Your task to perform on an android device: View the shopping cart on target.com. Add "macbook air" to the cart on target.com, then select checkout. Image 0: 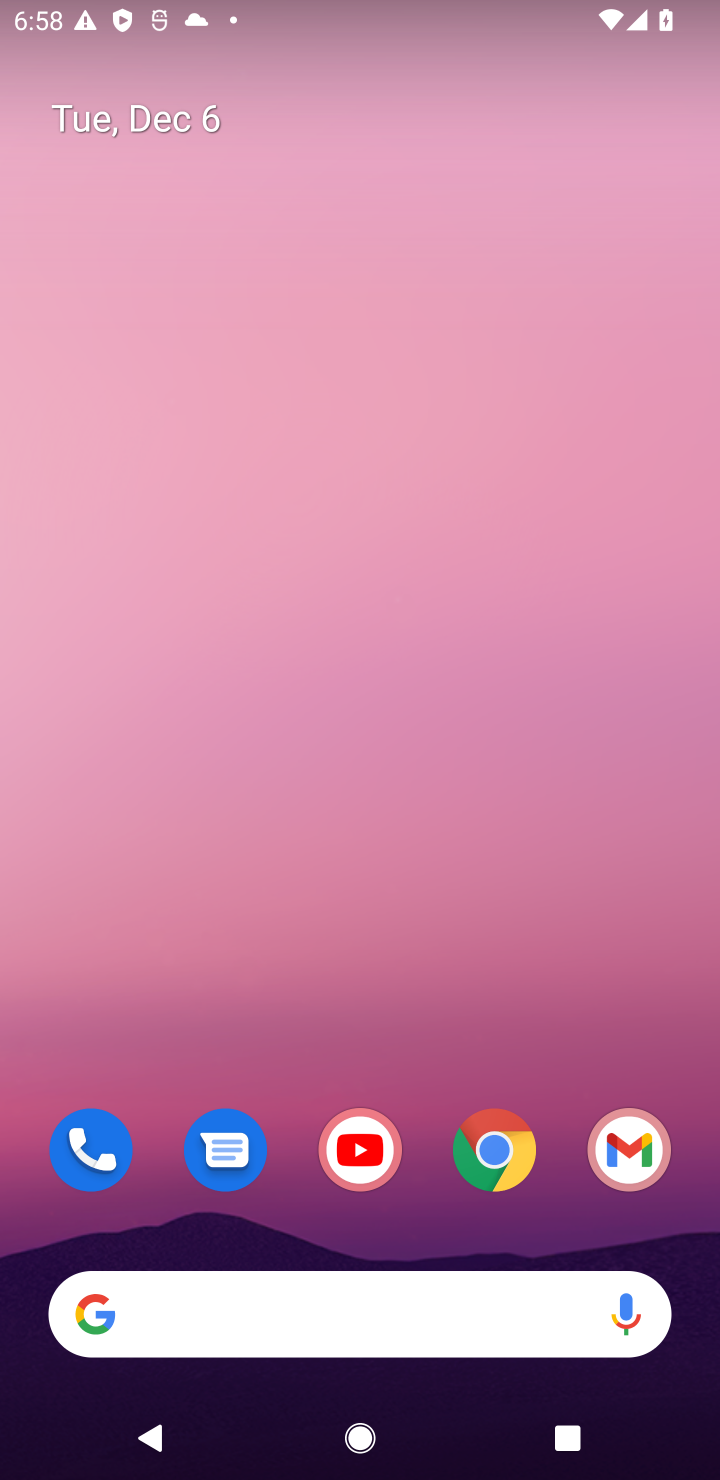
Step 0: click (490, 1164)
Your task to perform on an android device: View the shopping cart on target.com. Add "macbook air" to the cart on target.com, then select checkout. Image 1: 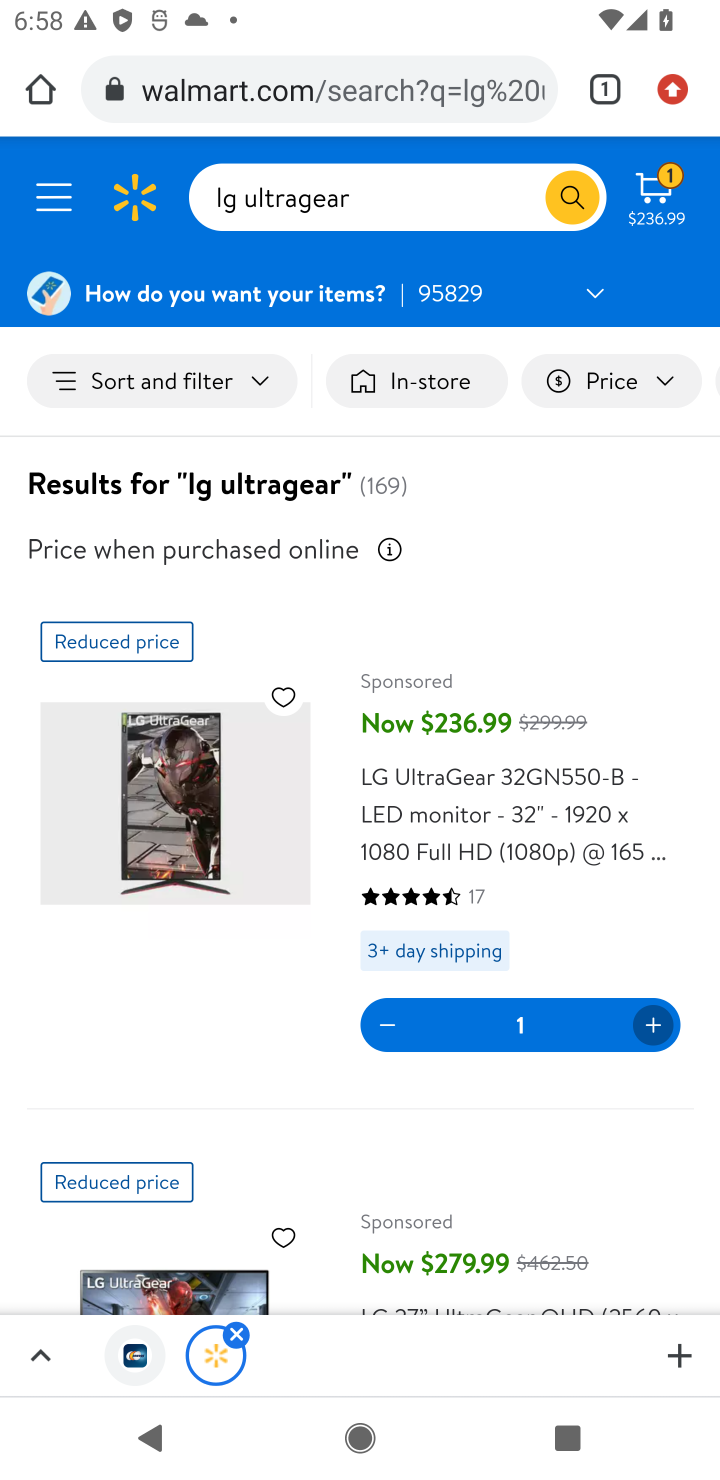
Step 1: click (282, 100)
Your task to perform on an android device: View the shopping cart on target.com. Add "macbook air" to the cart on target.com, then select checkout. Image 2: 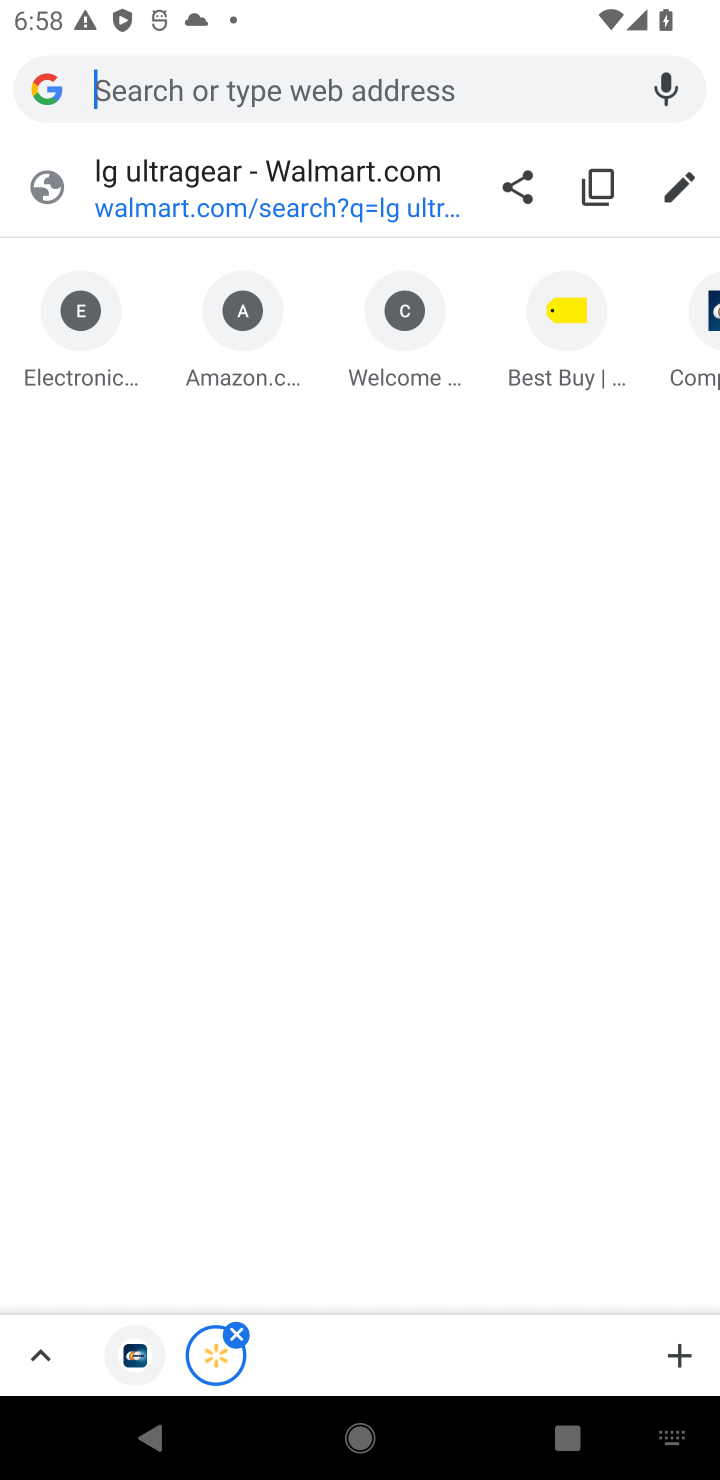
Step 2: type "target.com"
Your task to perform on an android device: View the shopping cart on target.com. Add "macbook air" to the cart on target.com, then select checkout. Image 3: 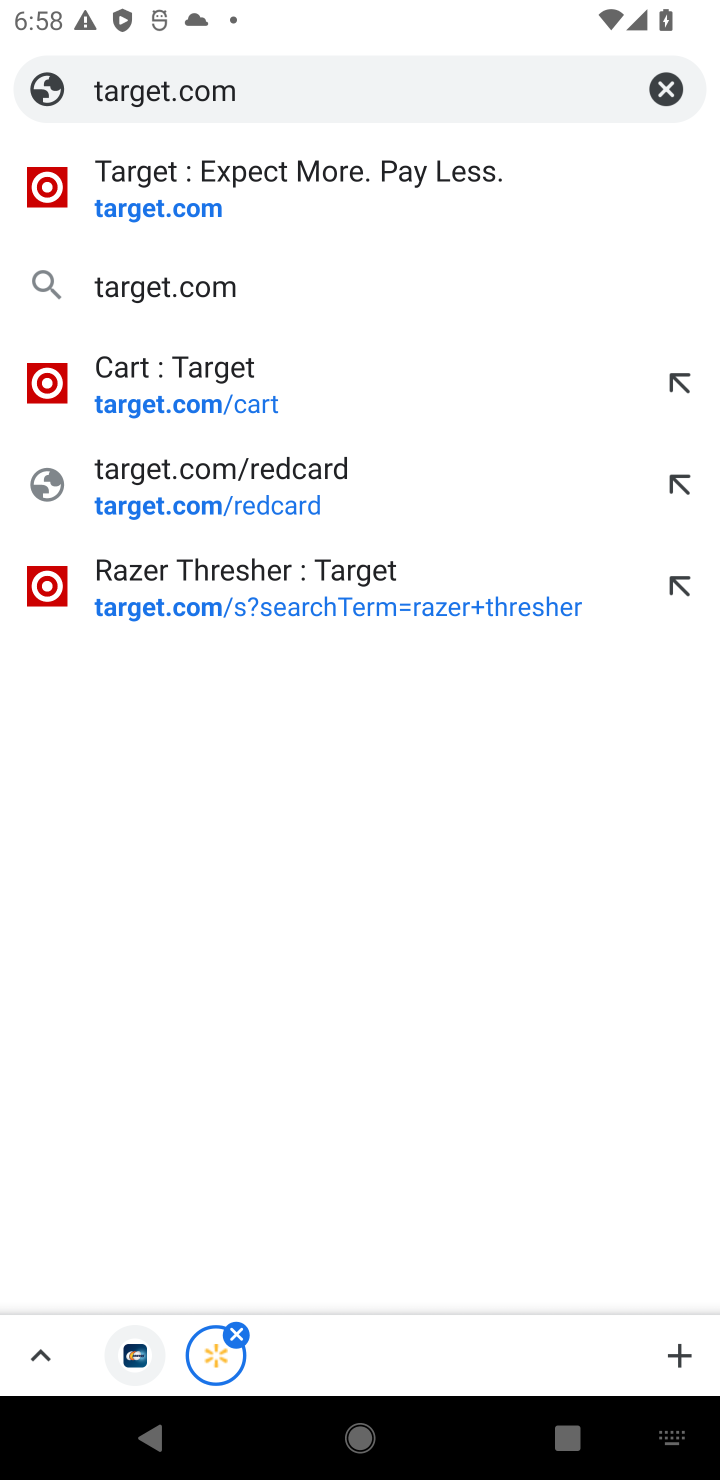
Step 3: click (169, 212)
Your task to perform on an android device: View the shopping cart on target.com. Add "macbook air" to the cart on target.com, then select checkout. Image 4: 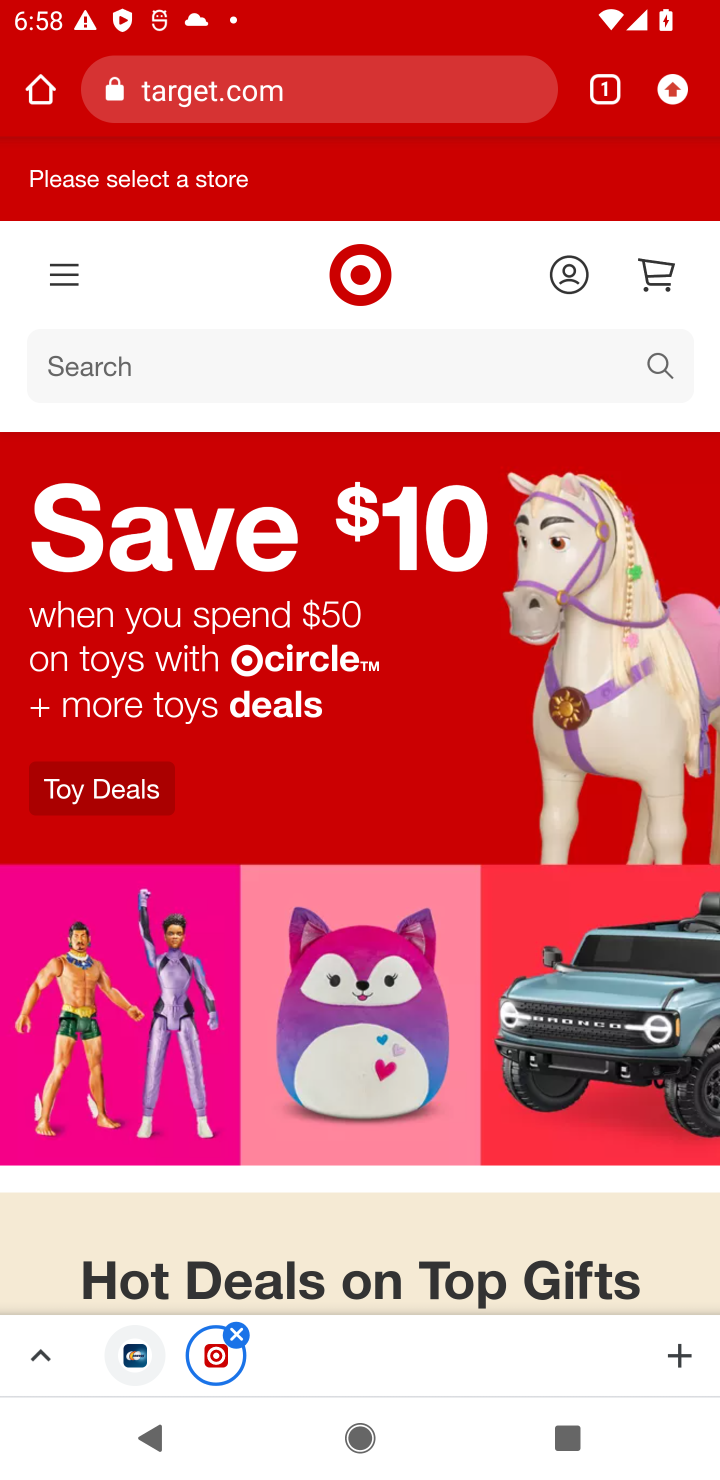
Step 4: click (660, 260)
Your task to perform on an android device: View the shopping cart on target.com. Add "macbook air" to the cart on target.com, then select checkout. Image 5: 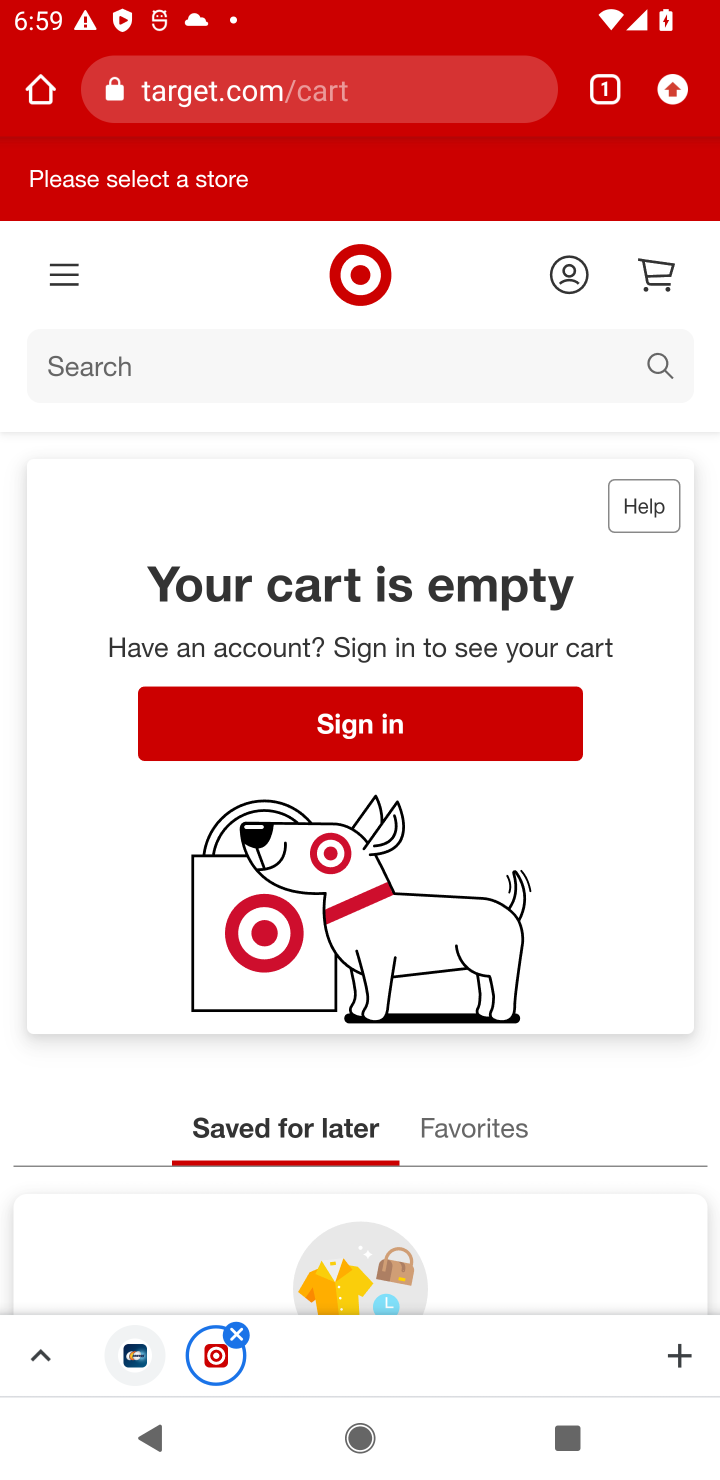
Step 5: click (39, 362)
Your task to perform on an android device: View the shopping cart on target.com. Add "macbook air" to the cart on target.com, then select checkout. Image 6: 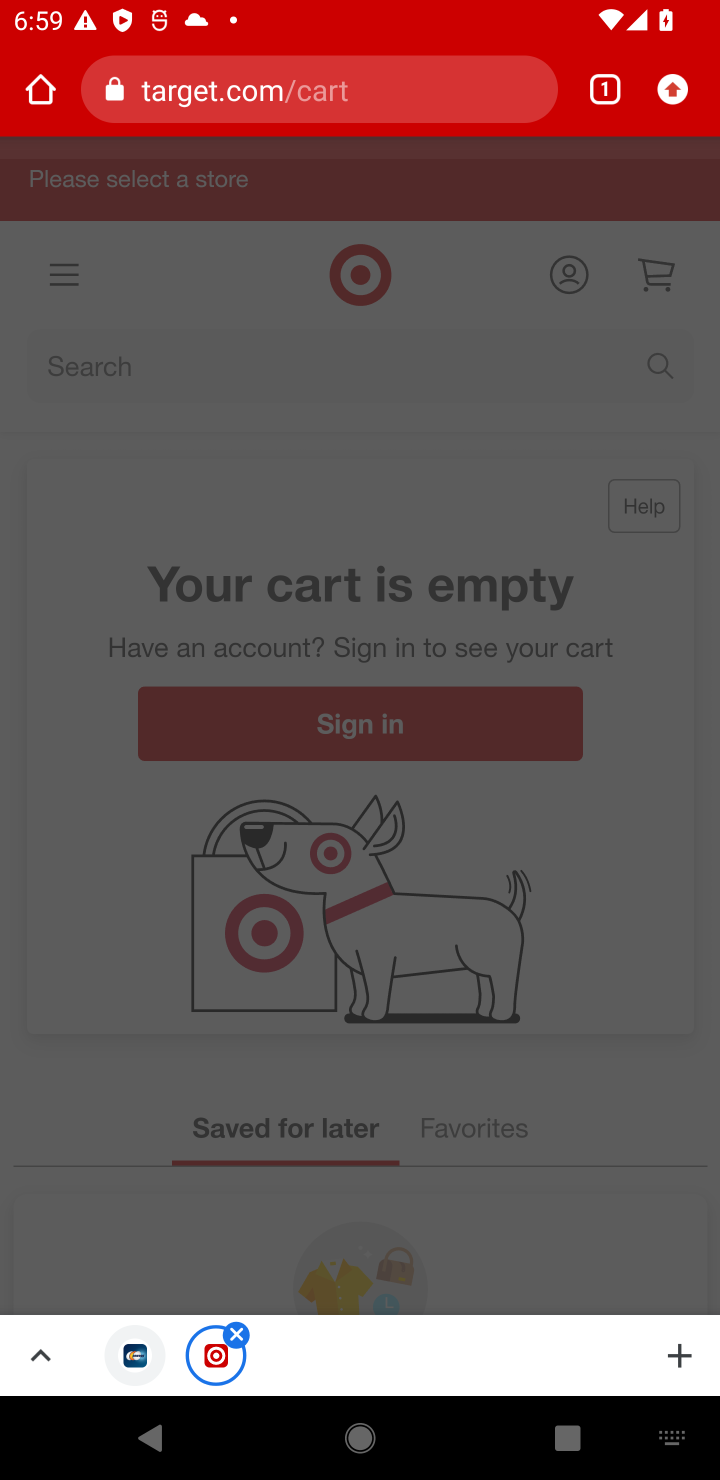
Step 6: click (103, 377)
Your task to perform on an android device: View the shopping cart on target.com. Add "macbook air" to the cart on target.com, then select checkout. Image 7: 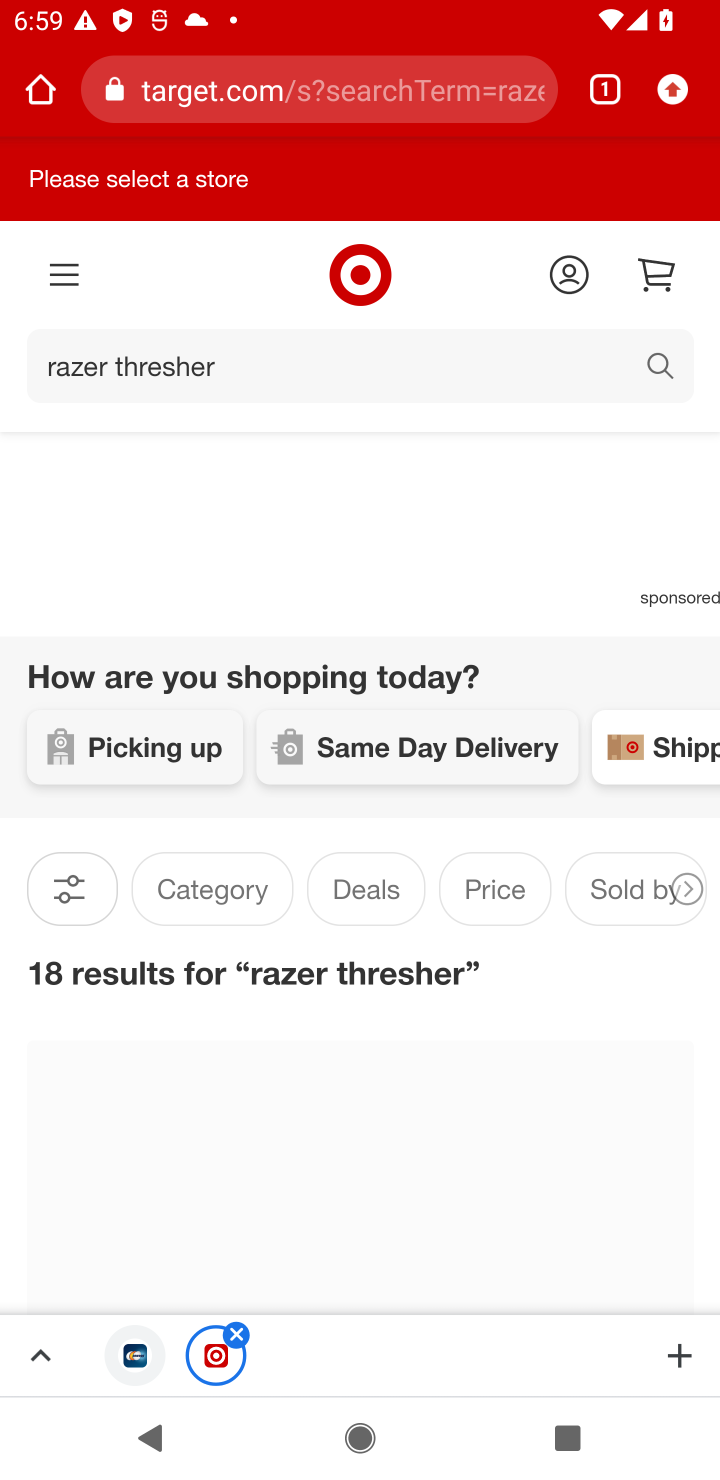
Step 7: click (255, 357)
Your task to perform on an android device: View the shopping cart on target.com. Add "macbook air" to the cart on target.com, then select checkout. Image 8: 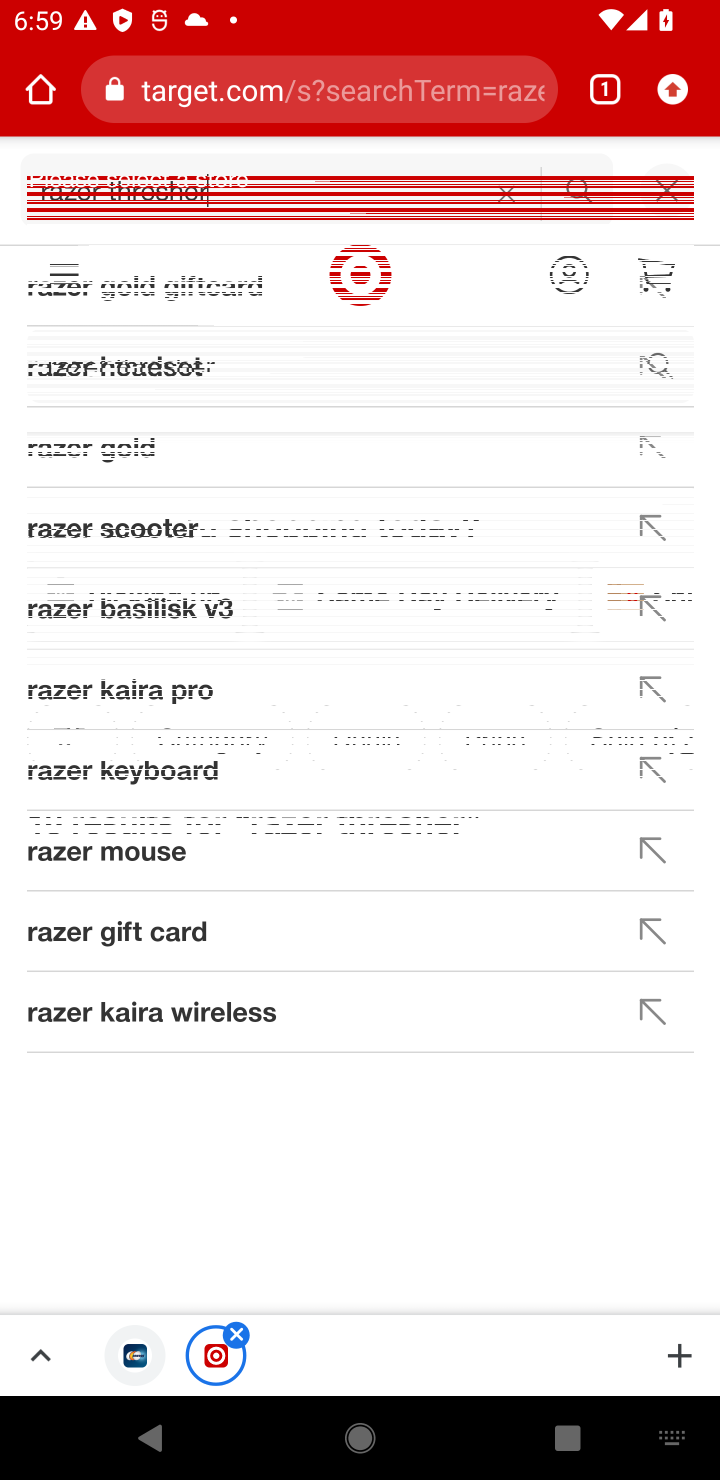
Step 8: click (500, 196)
Your task to perform on an android device: View the shopping cart on target.com. Add "macbook air" to the cart on target.com, then select checkout. Image 9: 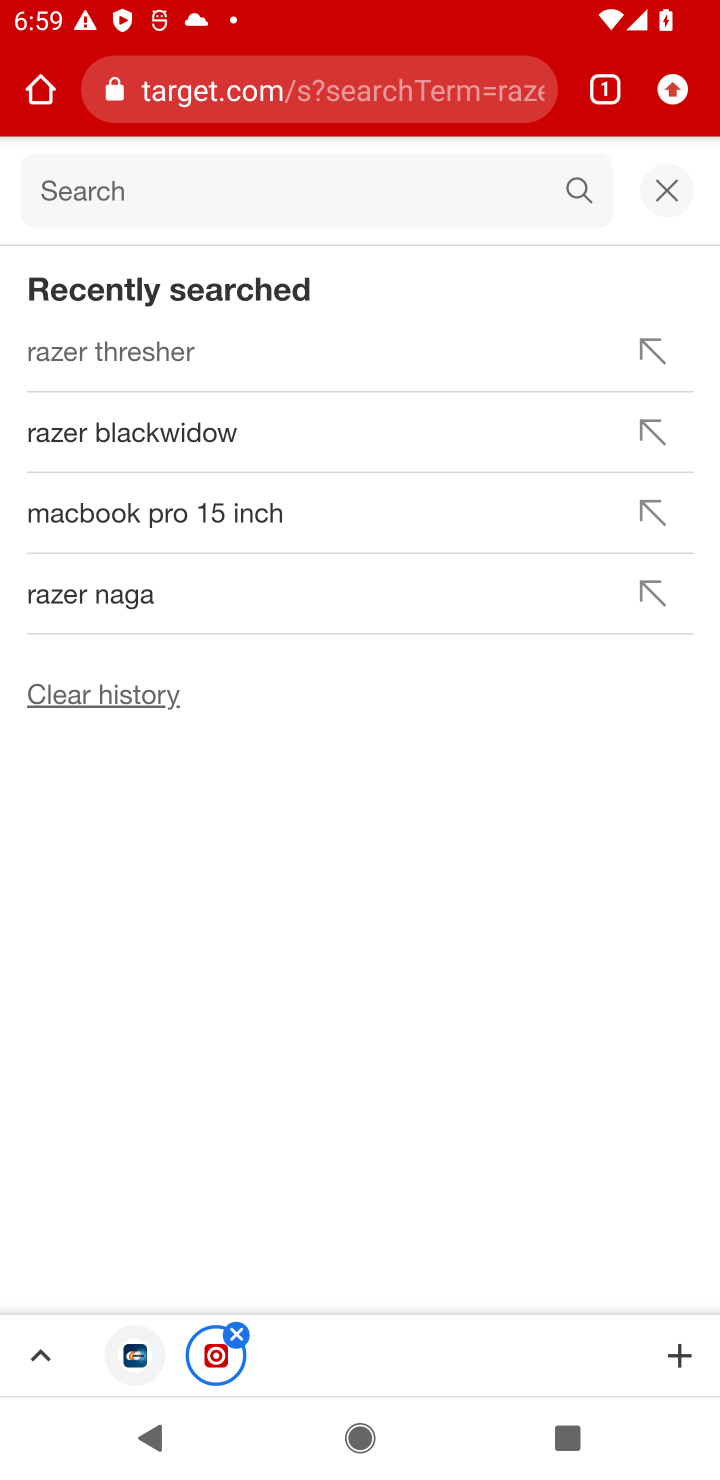
Step 9: type "macbook air "
Your task to perform on an android device: View the shopping cart on target.com. Add "macbook air" to the cart on target.com, then select checkout. Image 10: 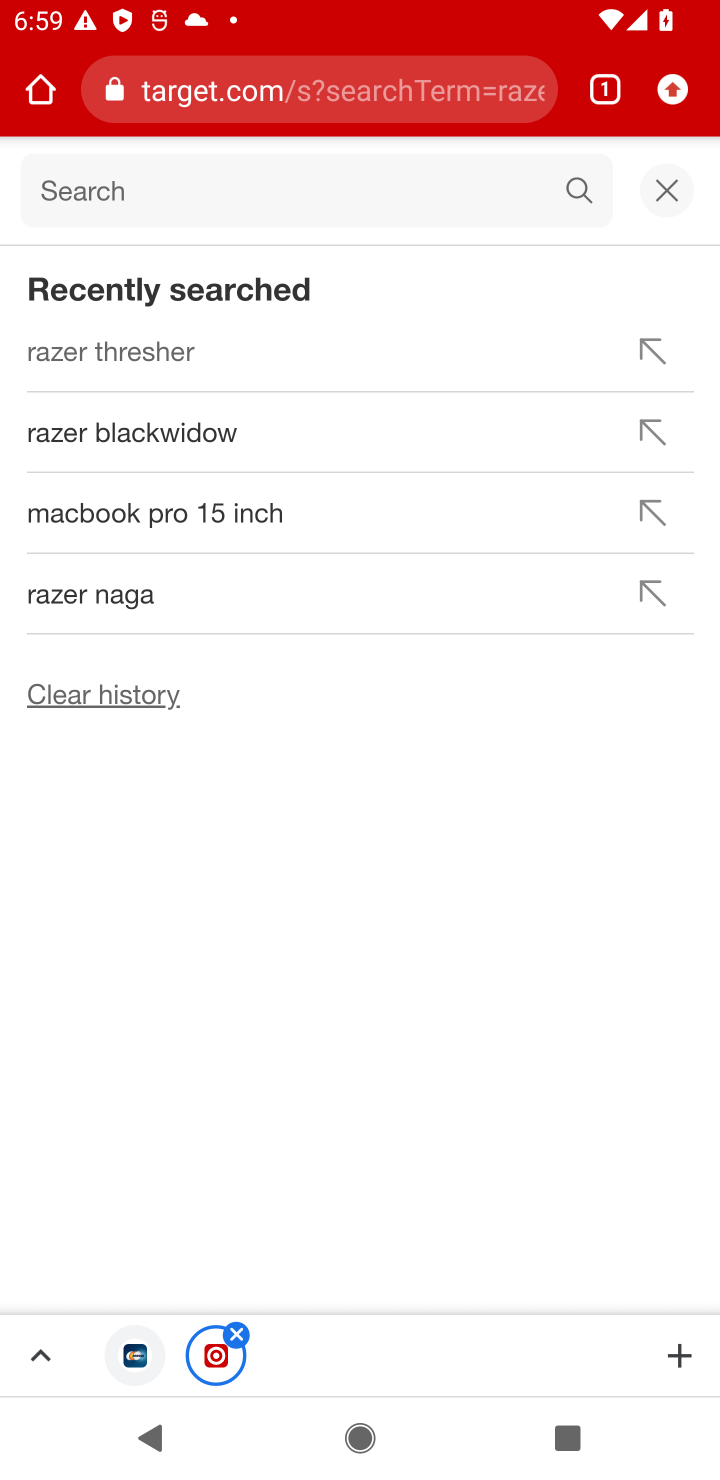
Step 10: click (84, 190)
Your task to perform on an android device: View the shopping cart on target.com. Add "macbook air" to the cart on target.com, then select checkout. Image 11: 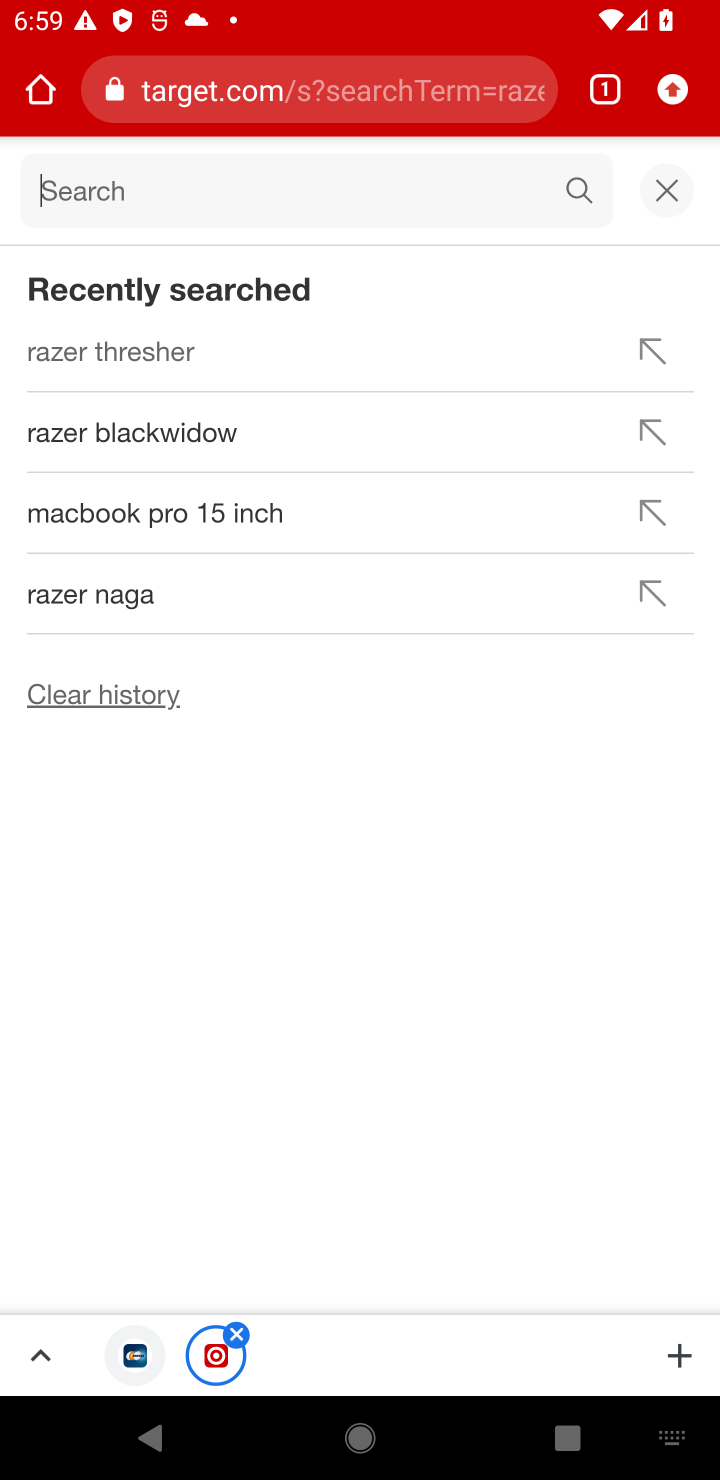
Step 11: type "macbook air"
Your task to perform on an android device: View the shopping cart on target.com. Add "macbook air" to the cart on target.com, then select checkout. Image 12: 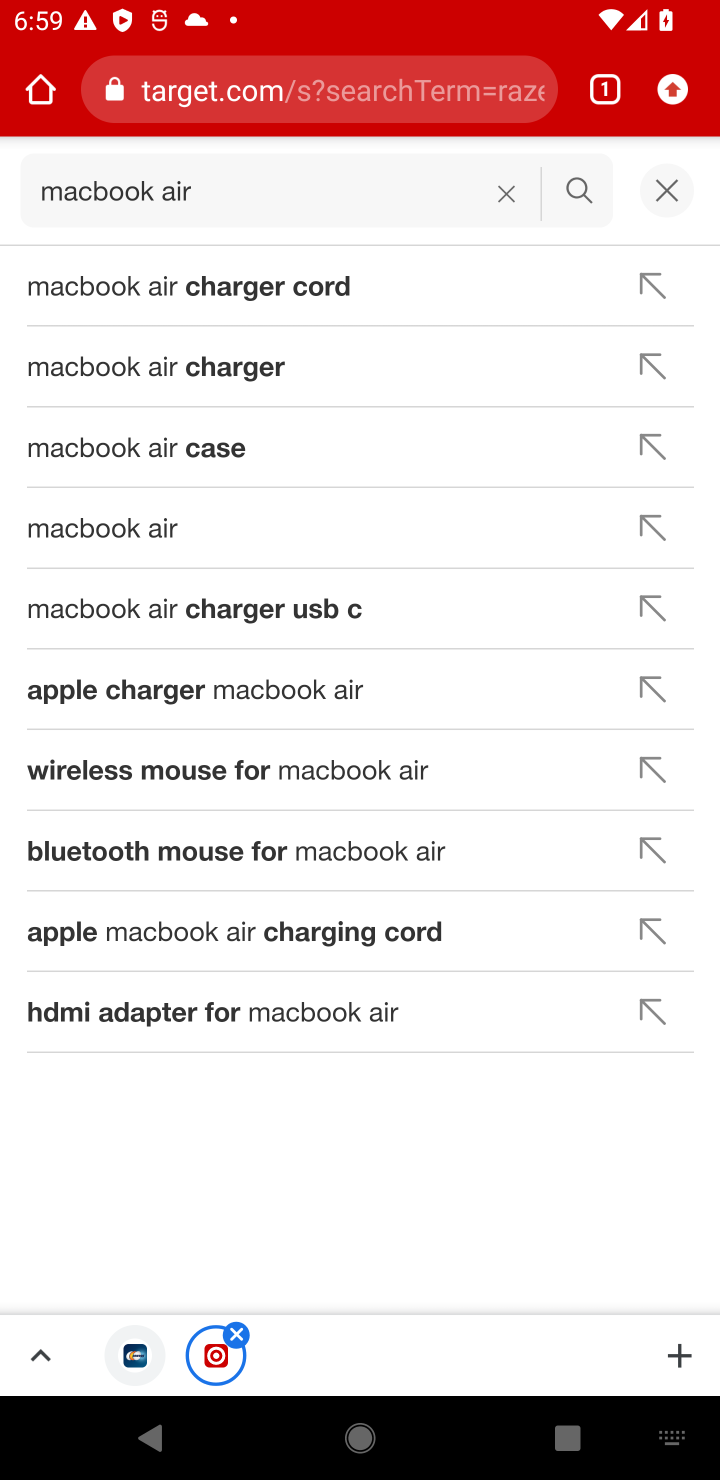
Step 12: click (157, 537)
Your task to perform on an android device: View the shopping cart on target.com. Add "macbook air" to the cart on target.com, then select checkout. Image 13: 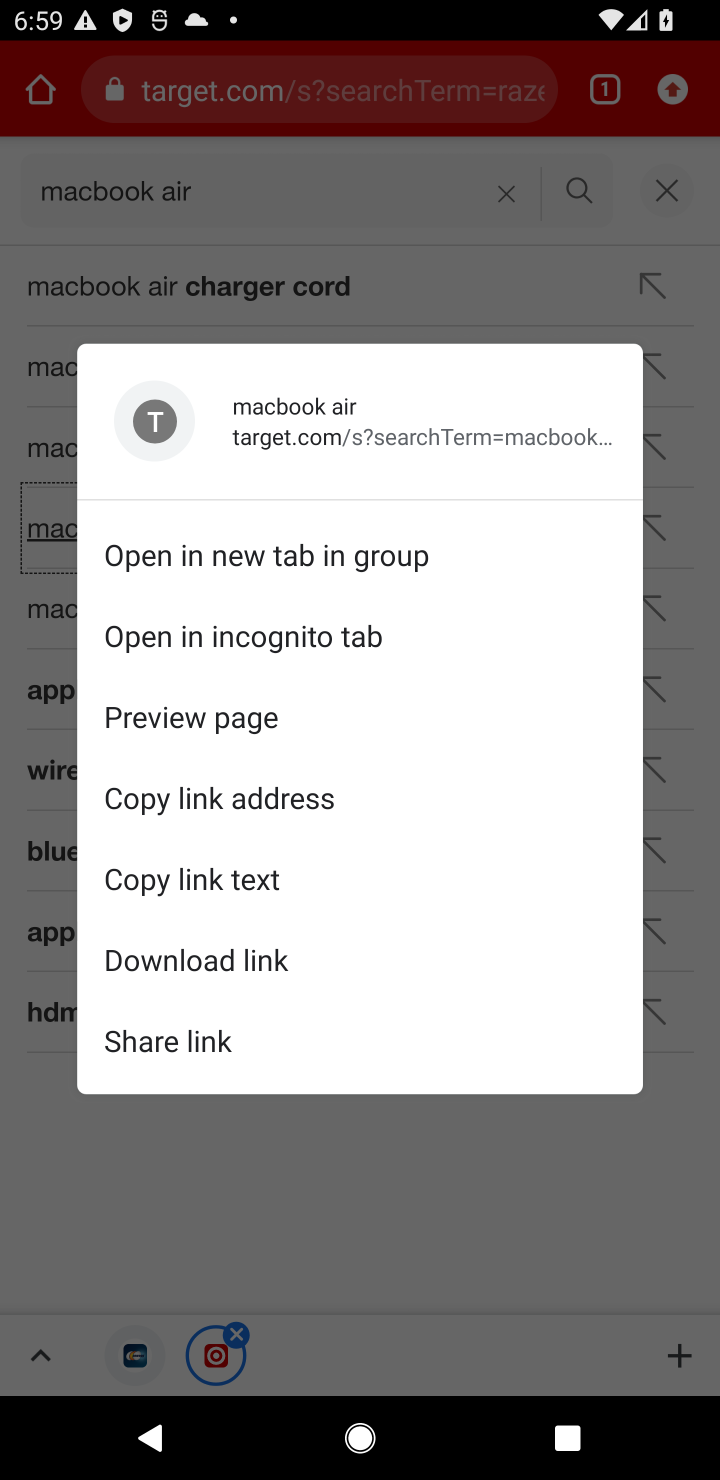
Step 13: click (15, 521)
Your task to perform on an android device: View the shopping cart on target.com. Add "macbook air" to the cart on target.com, then select checkout. Image 14: 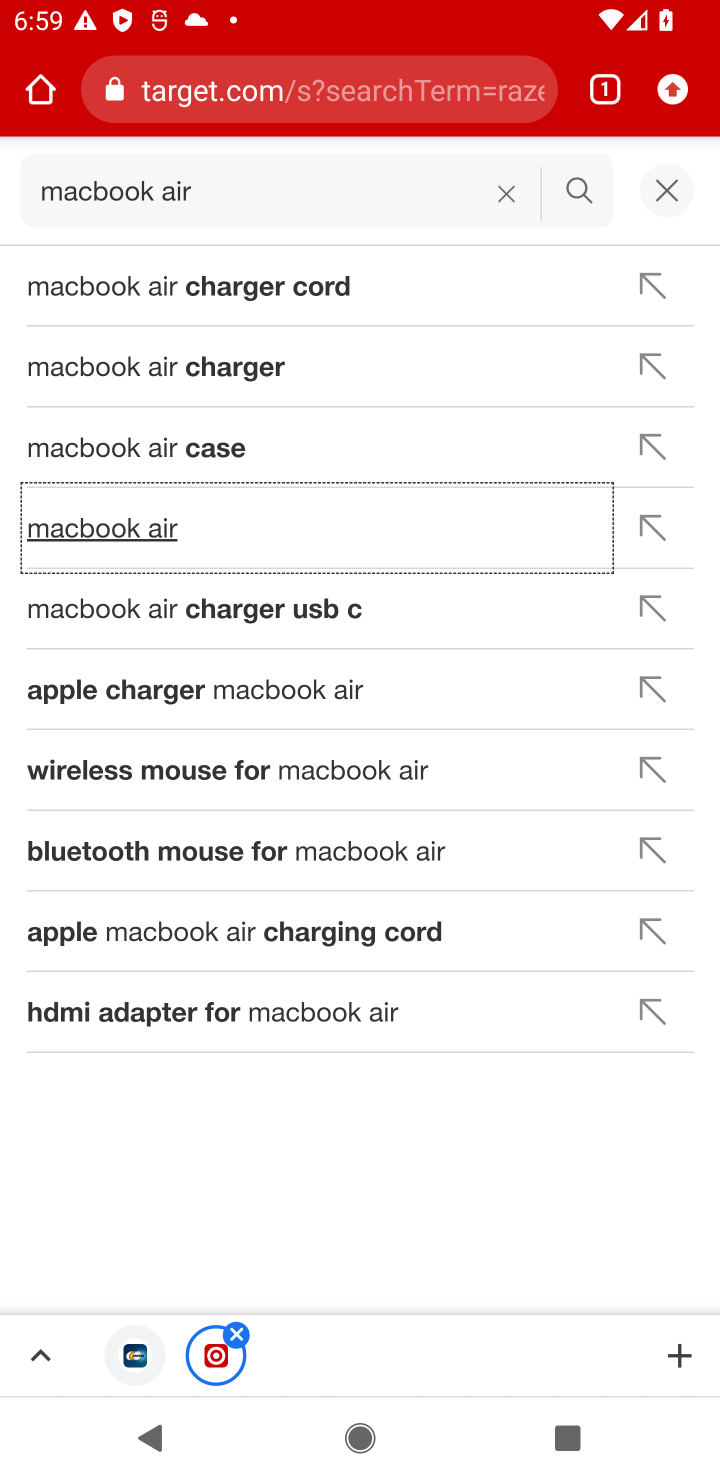
Step 14: click (29, 523)
Your task to perform on an android device: View the shopping cart on target.com. Add "macbook air" to the cart on target.com, then select checkout. Image 15: 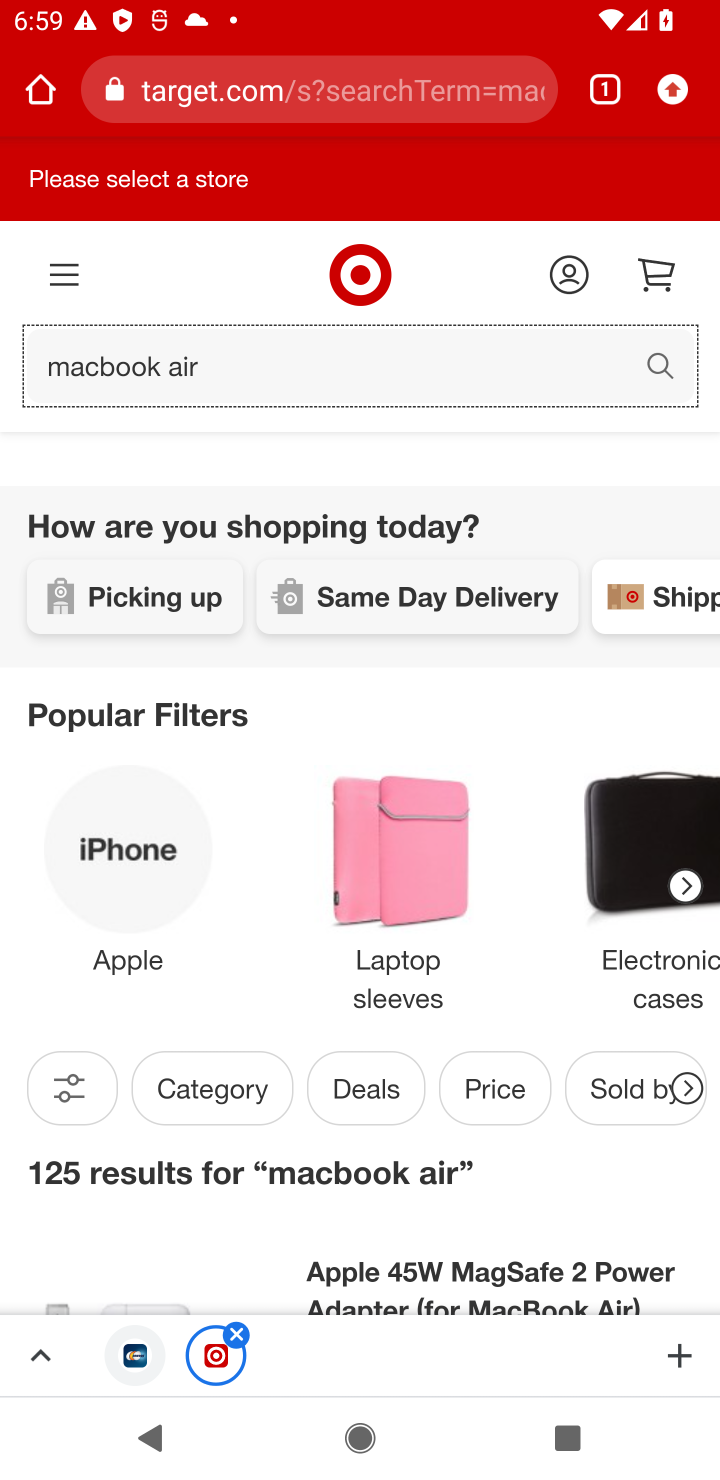
Step 15: drag from (270, 1118) to (272, 497)
Your task to perform on an android device: View the shopping cart on target.com. Add "macbook air" to the cart on target.com, then select checkout. Image 16: 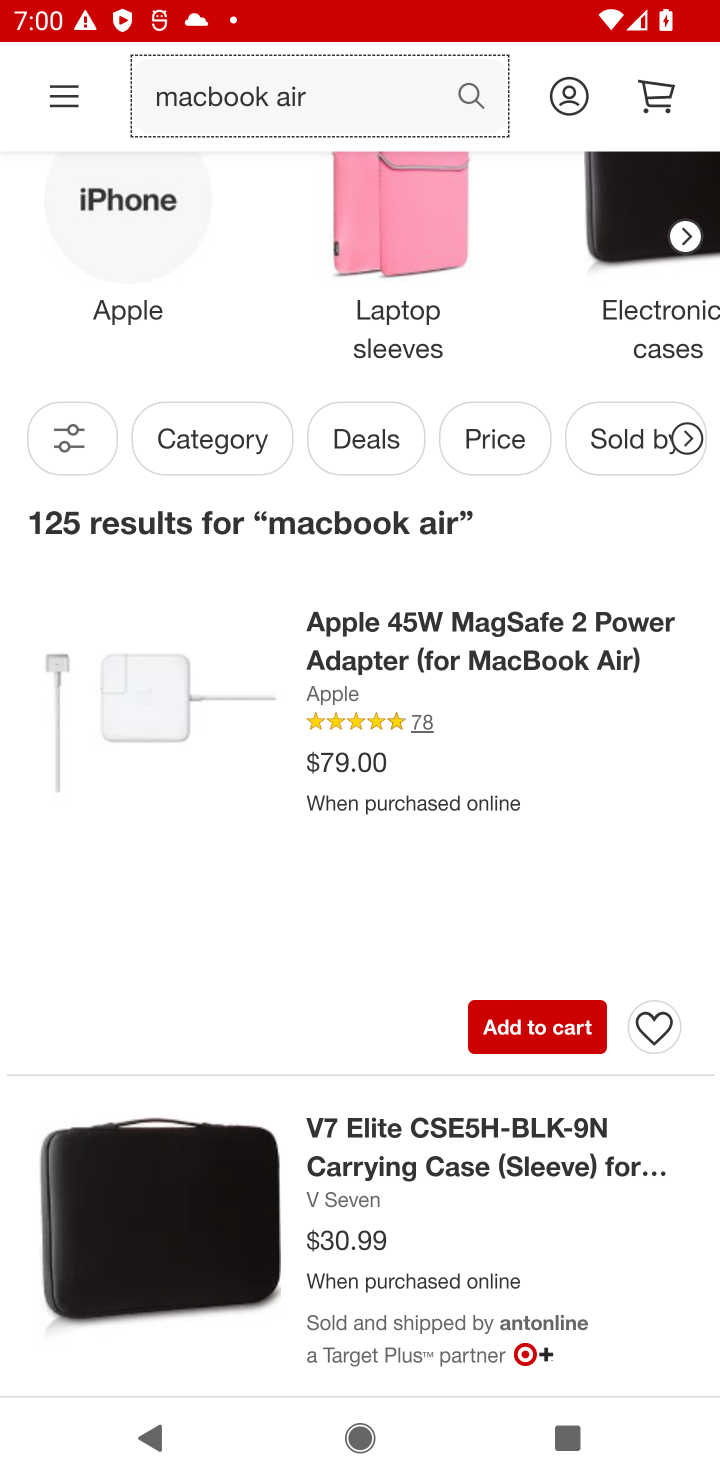
Step 16: click (530, 1021)
Your task to perform on an android device: View the shopping cart on target.com. Add "macbook air" to the cart on target.com, then select checkout. Image 17: 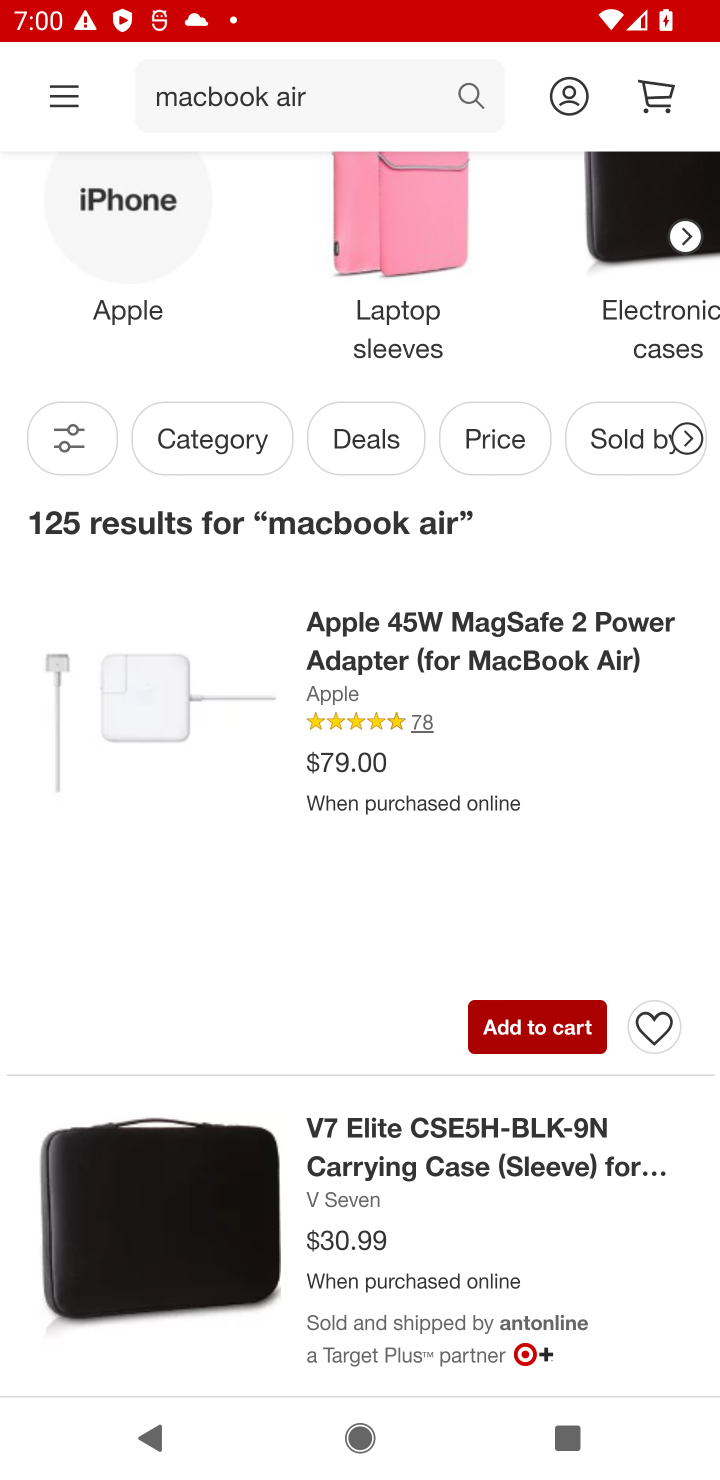
Step 17: drag from (575, 494) to (577, 961)
Your task to perform on an android device: View the shopping cart on target.com. Add "macbook air" to the cart on target.com, then select checkout. Image 18: 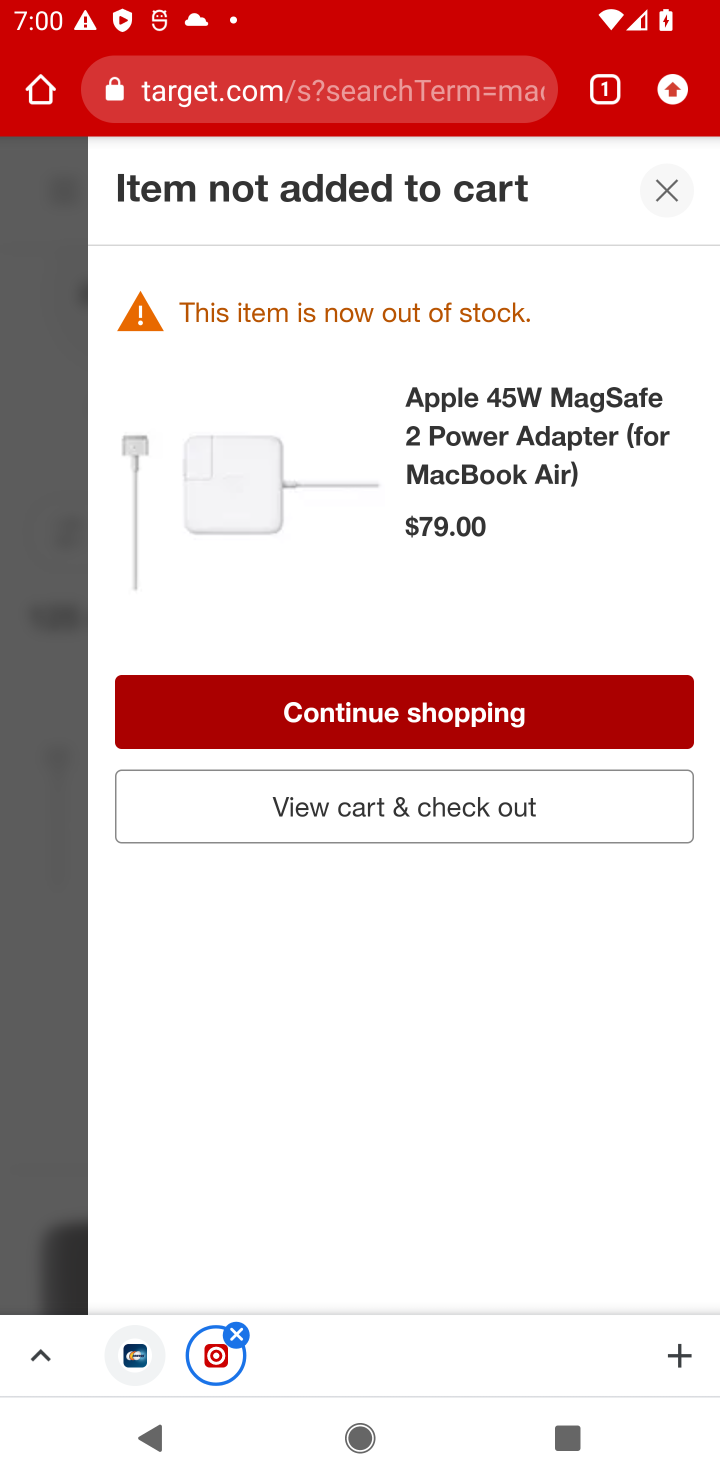
Step 18: click (454, 795)
Your task to perform on an android device: View the shopping cart on target.com. Add "macbook air" to the cart on target.com, then select checkout. Image 19: 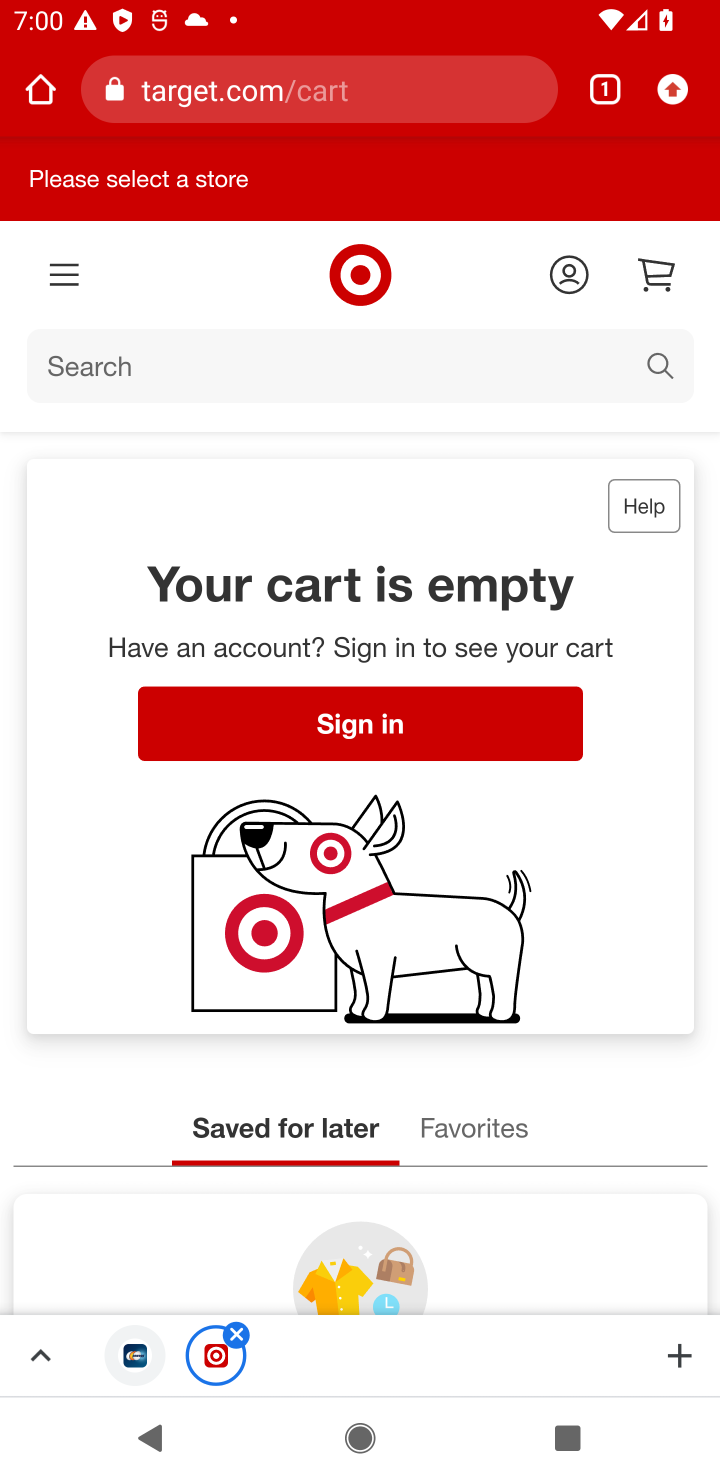
Step 19: task complete